Your task to perform on an android device: What's the weather going to be tomorrow? Image 0: 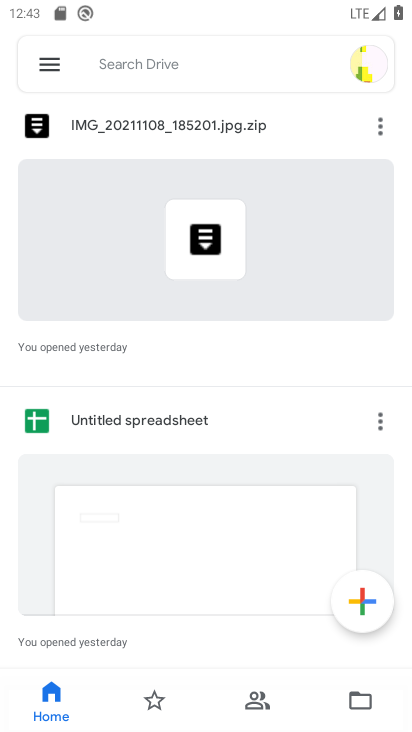
Step 0: press home button
Your task to perform on an android device: What's the weather going to be tomorrow? Image 1: 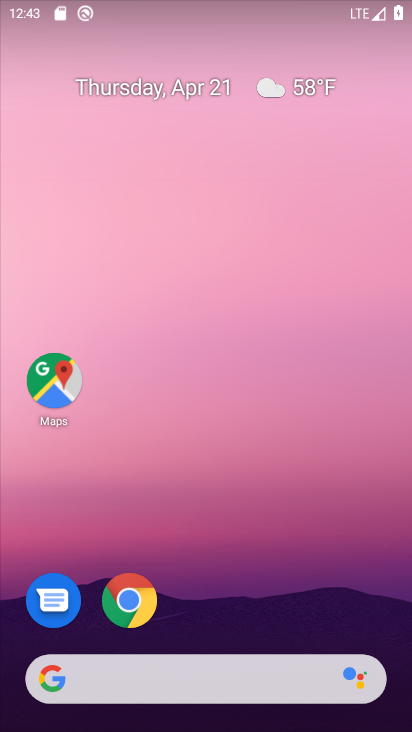
Step 1: click (288, 81)
Your task to perform on an android device: What's the weather going to be tomorrow? Image 2: 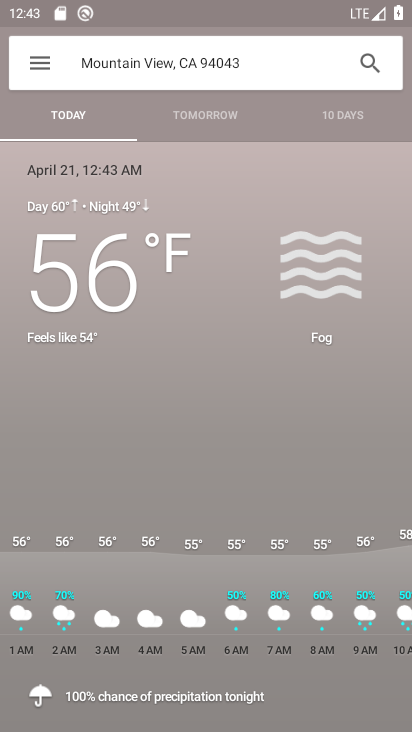
Step 2: click (221, 118)
Your task to perform on an android device: What's the weather going to be tomorrow? Image 3: 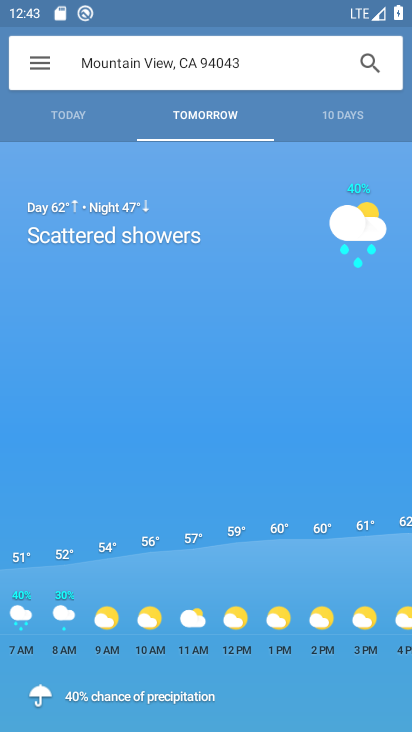
Step 3: task complete